Your task to perform on an android device: Open settings Image 0: 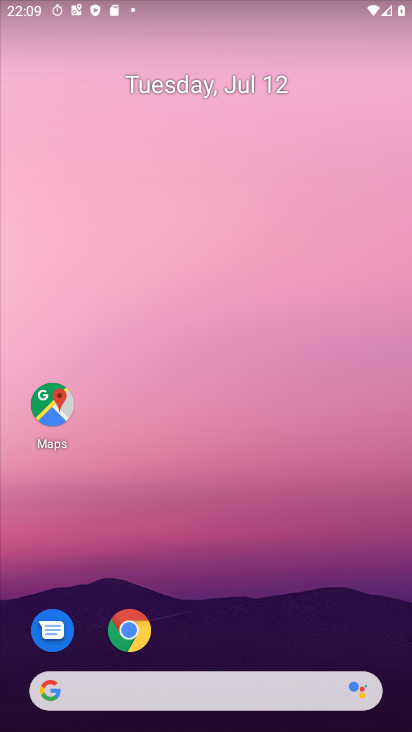
Step 0: drag from (284, 612) to (363, 0)
Your task to perform on an android device: Open settings Image 1: 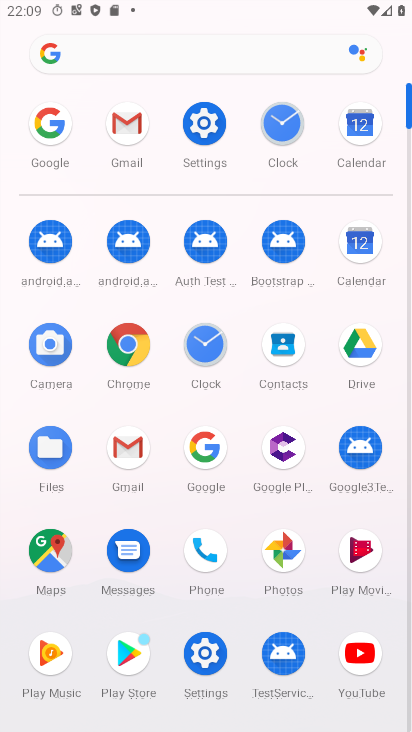
Step 1: click (197, 122)
Your task to perform on an android device: Open settings Image 2: 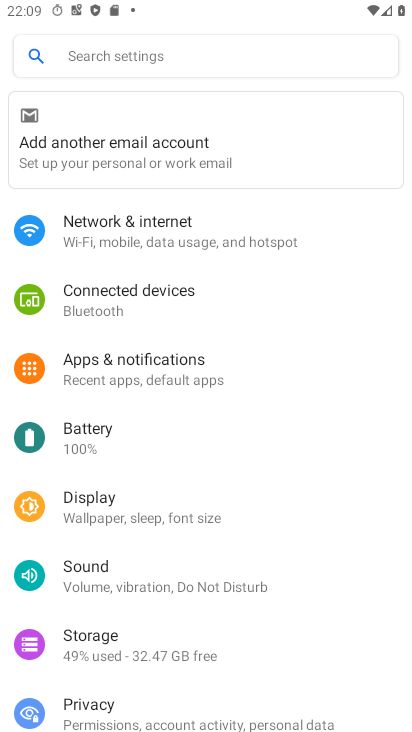
Step 2: task complete